Your task to perform on an android device: set the timer Image 0: 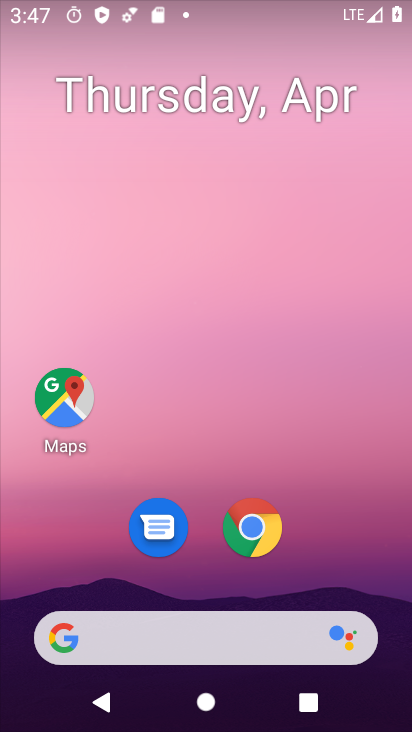
Step 0: drag from (309, 552) to (317, 151)
Your task to perform on an android device: set the timer Image 1: 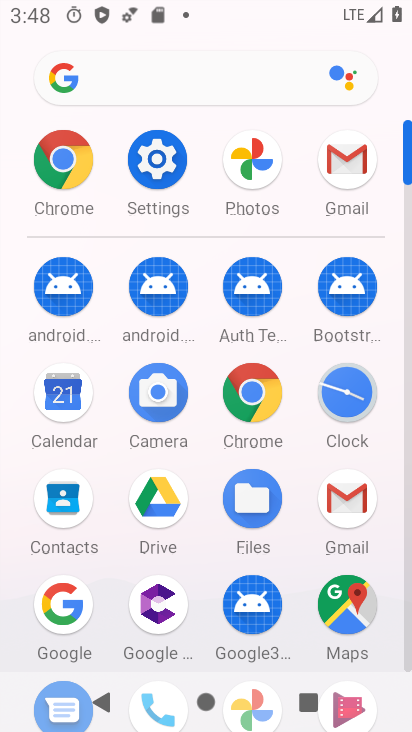
Step 1: click (346, 389)
Your task to perform on an android device: set the timer Image 2: 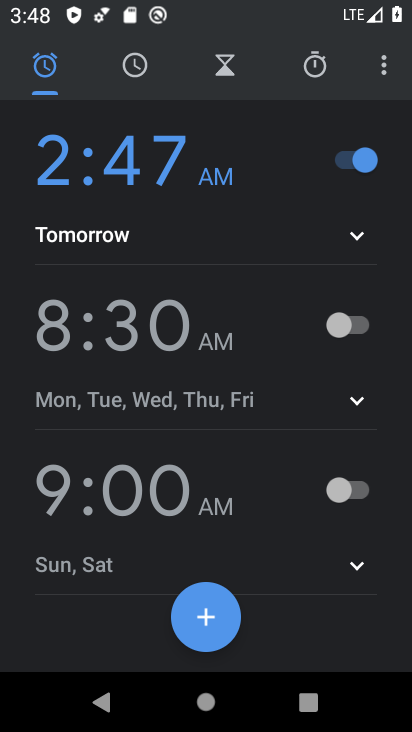
Step 2: click (227, 75)
Your task to perform on an android device: set the timer Image 3: 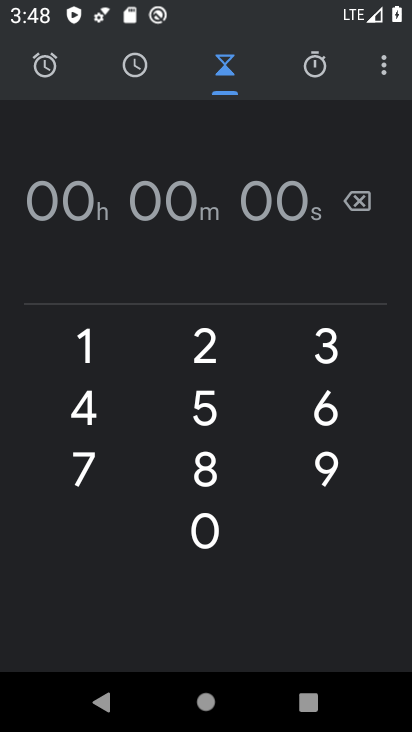
Step 3: click (189, 408)
Your task to perform on an android device: set the timer Image 4: 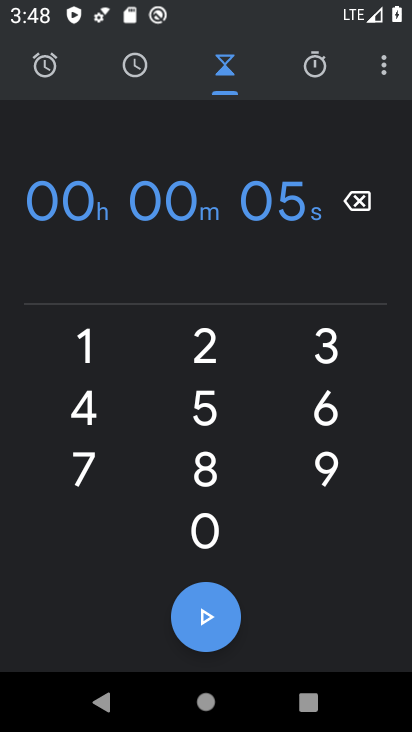
Step 4: task complete